Your task to perform on an android device: turn off improve location accuracy Image 0: 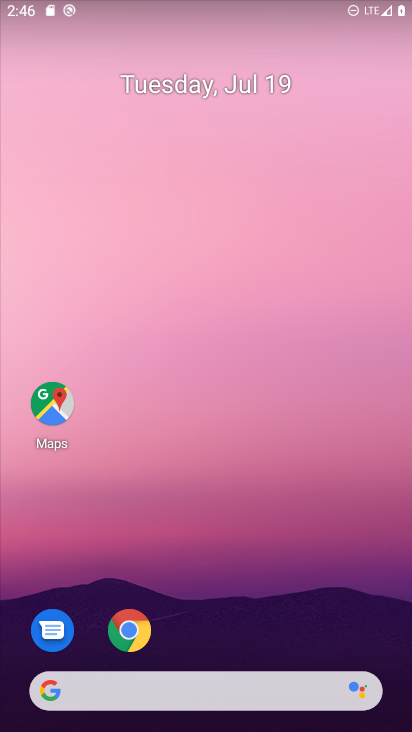
Step 0: drag from (336, 654) to (305, 235)
Your task to perform on an android device: turn off improve location accuracy Image 1: 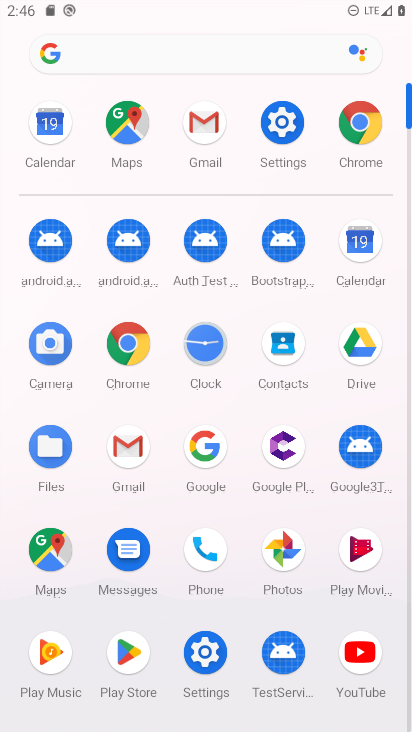
Step 1: click (204, 653)
Your task to perform on an android device: turn off improve location accuracy Image 2: 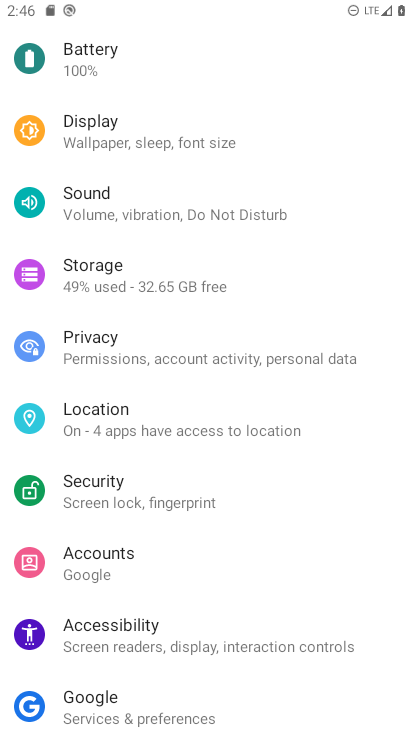
Step 2: click (97, 417)
Your task to perform on an android device: turn off improve location accuracy Image 3: 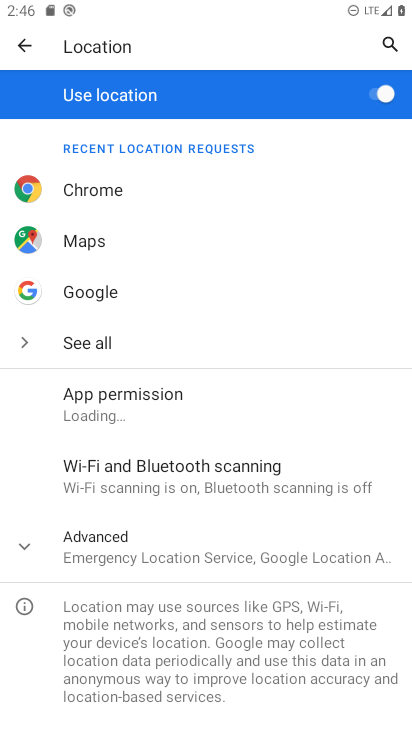
Step 3: click (29, 544)
Your task to perform on an android device: turn off improve location accuracy Image 4: 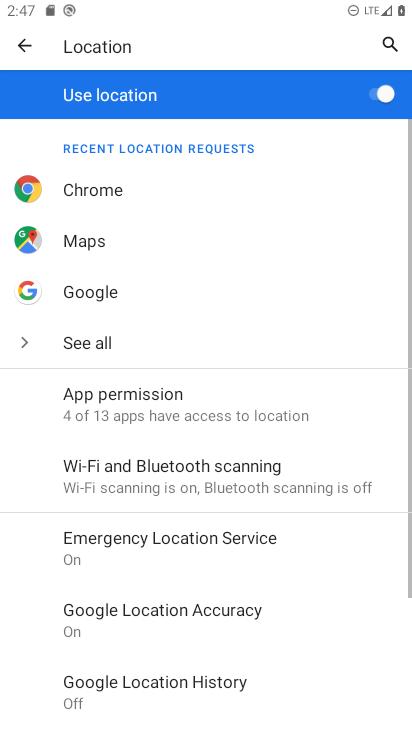
Step 4: click (134, 608)
Your task to perform on an android device: turn off improve location accuracy Image 5: 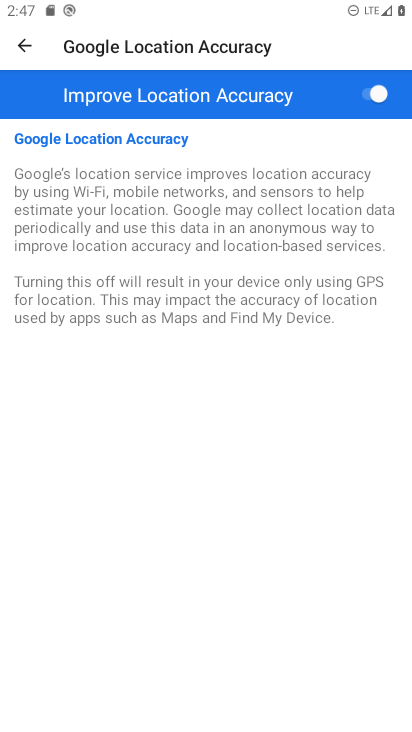
Step 5: click (361, 92)
Your task to perform on an android device: turn off improve location accuracy Image 6: 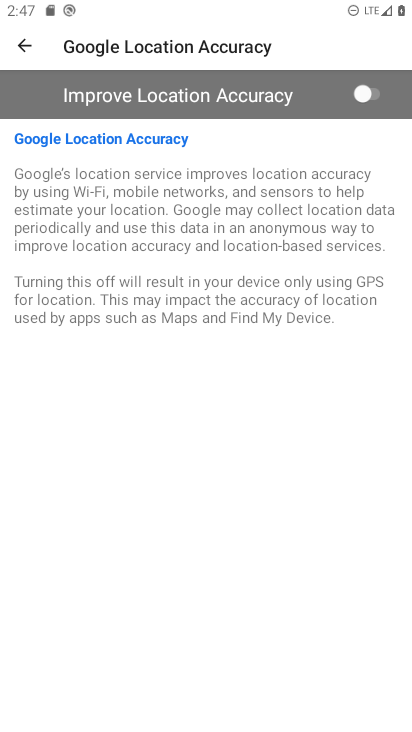
Step 6: task complete